Your task to perform on an android device: Check the weather Image 0: 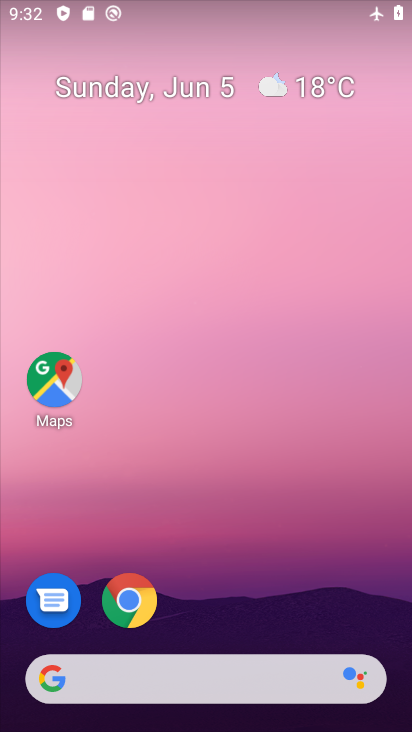
Step 0: click (322, 81)
Your task to perform on an android device: Check the weather Image 1: 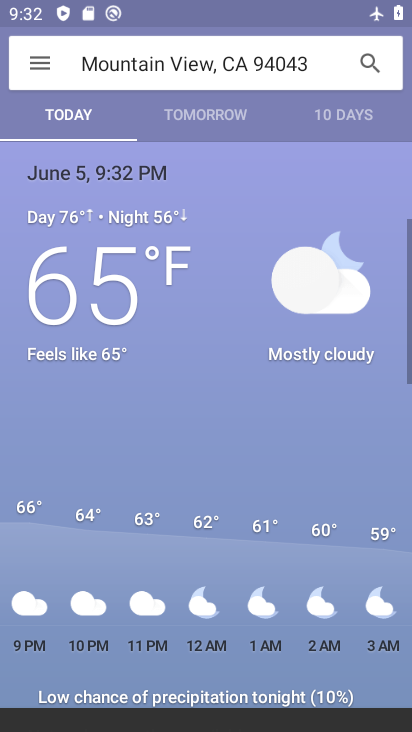
Step 1: click (315, 96)
Your task to perform on an android device: Check the weather Image 2: 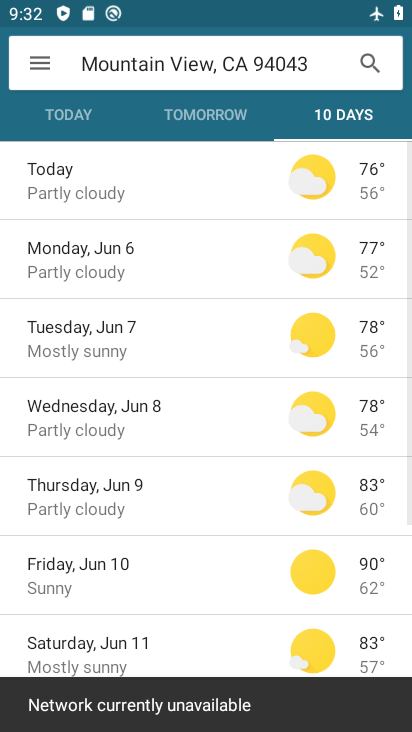
Step 2: click (50, 112)
Your task to perform on an android device: Check the weather Image 3: 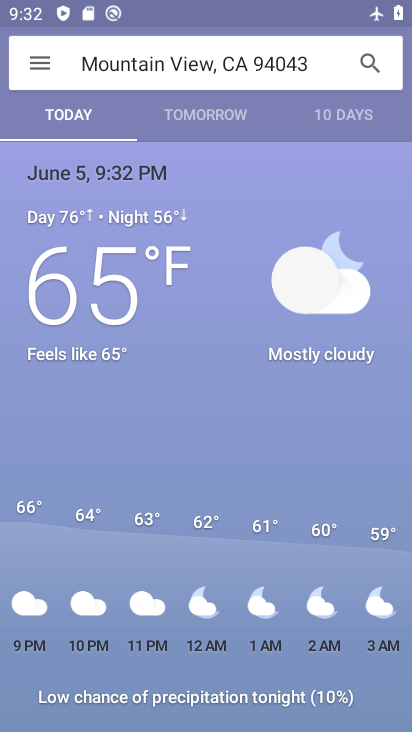
Step 3: task complete